Your task to perform on an android device: refresh tabs in the chrome app Image 0: 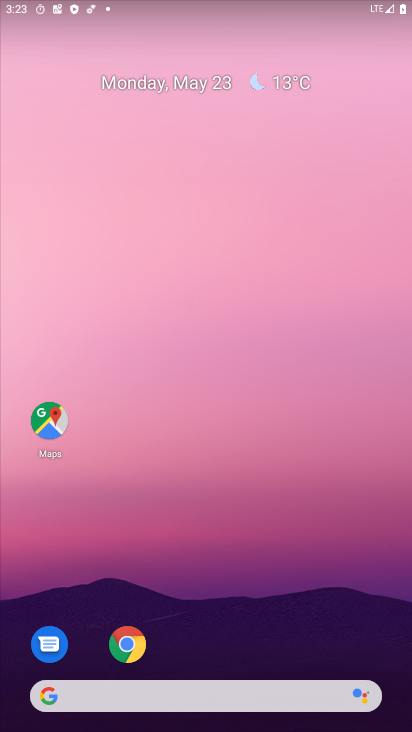
Step 0: click (37, 407)
Your task to perform on an android device: refresh tabs in the chrome app Image 1: 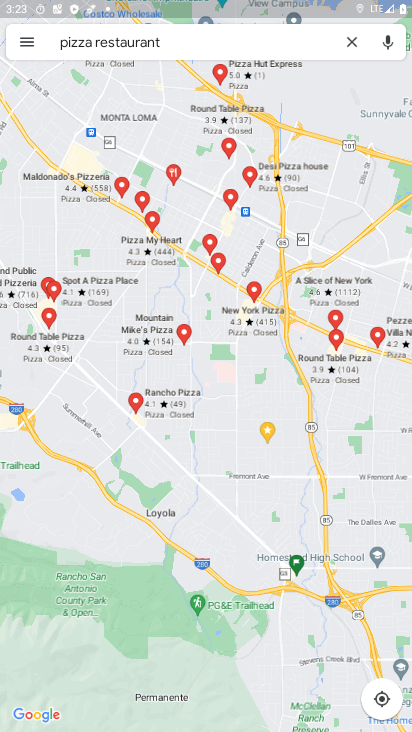
Step 1: press home button
Your task to perform on an android device: refresh tabs in the chrome app Image 2: 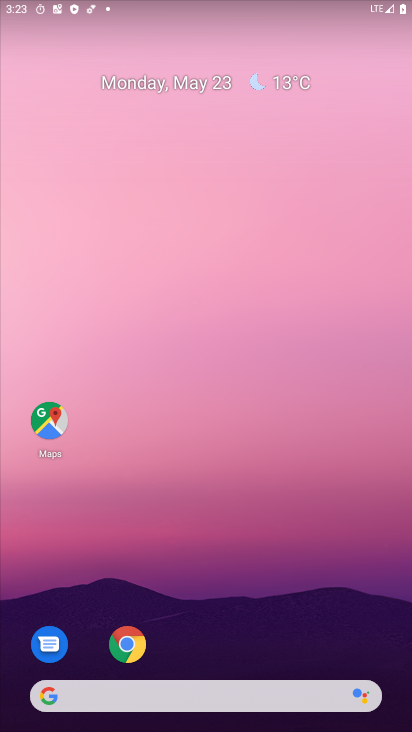
Step 2: drag from (213, 664) to (214, 61)
Your task to perform on an android device: refresh tabs in the chrome app Image 3: 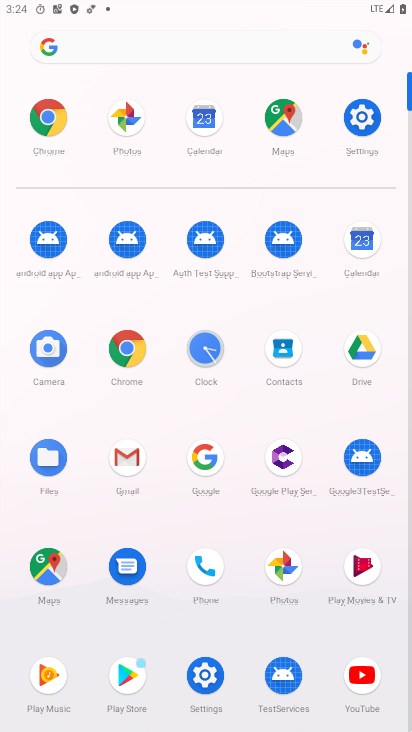
Step 3: click (139, 356)
Your task to perform on an android device: refresh tabs in the chrome app Image 4: 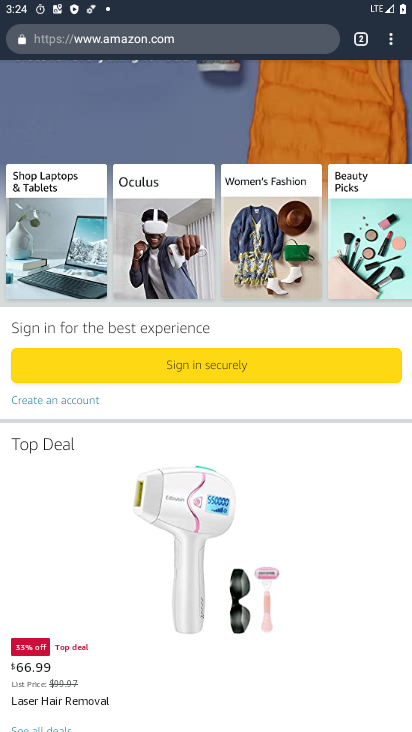
Step 4: click (394, 38)
Your task to perform on an android device: refresh tabs in the chrome app Image 5: 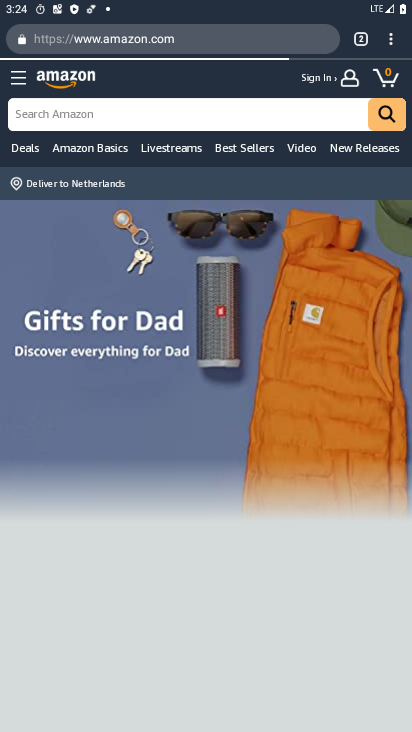
Step 5: click (392, 40)
Your task to perform on an android device: refresh tabs in the chrome app Image 6: 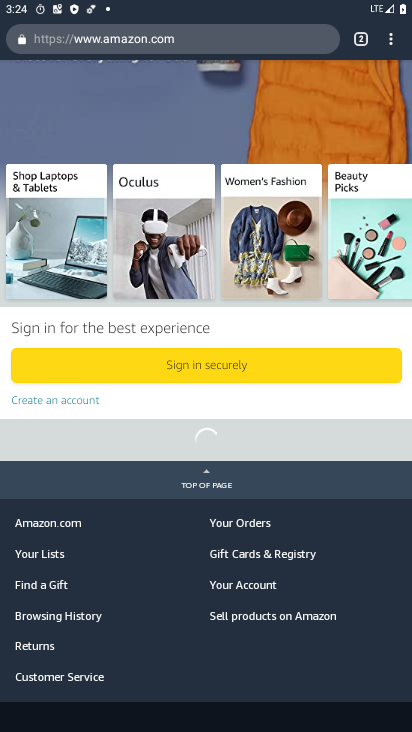
Step 6: click (392, 40)
Your task to perform on an android device: refresh tabs in the chrome app Image 7: 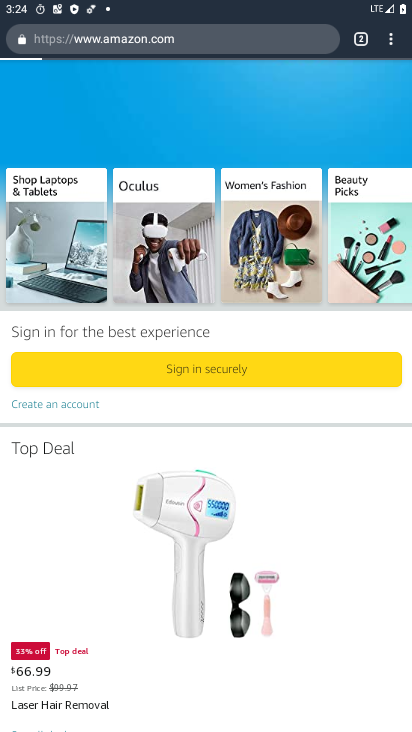
Step 7: task complete